Your task to perform on an android device: Go to settings Image 0: 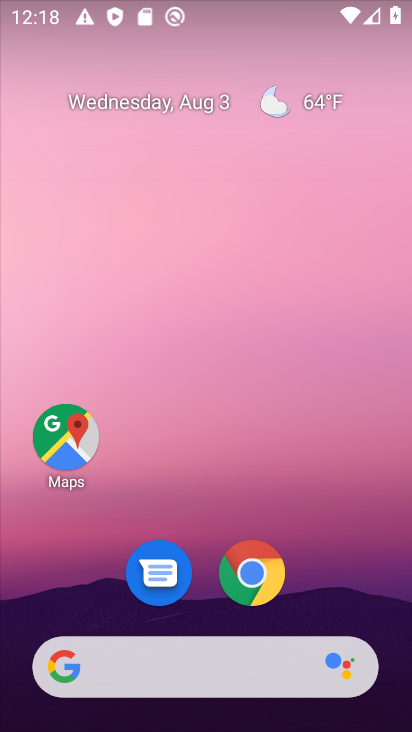
Step 0: drag from (184, 429) to (226, 56)
Your task to perform on an android device: Go to settings Image 1: 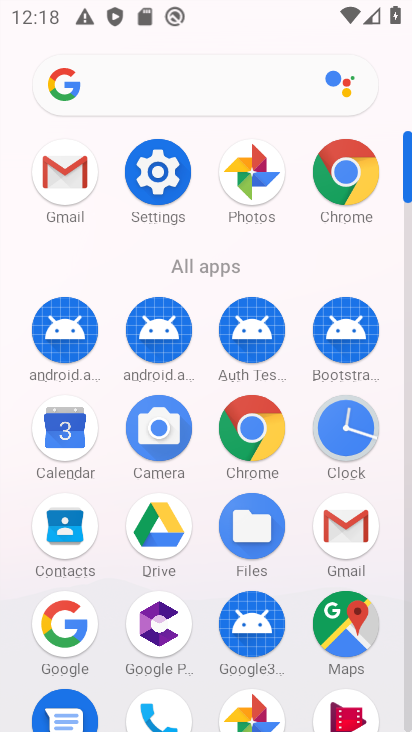
Step 1: click (155, 203)
Your task to perform on an android device: Go to settings Image 2: 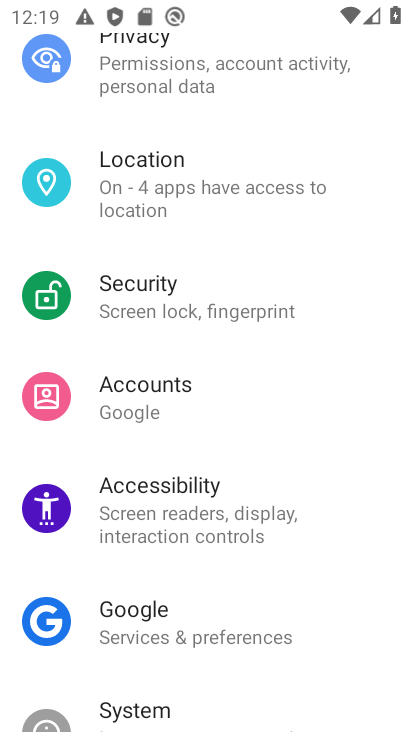
Step 2: task complete